Your task to perform on an android device: turn on data saver in the chrome app Image 0: 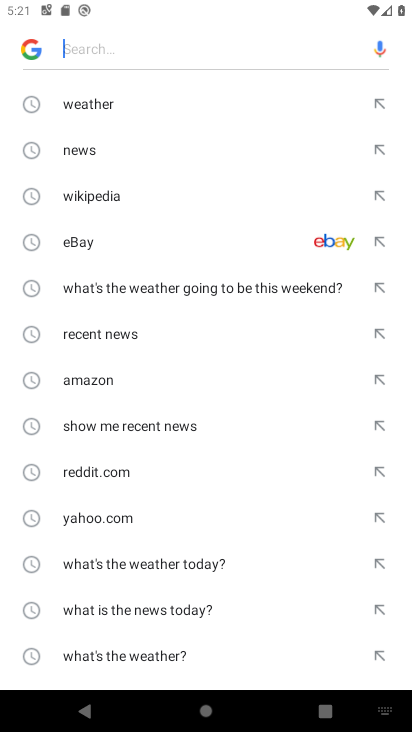
Step 0: press home button
Your task to perform on an android device: turn on data saver in the chrome app Image 1: 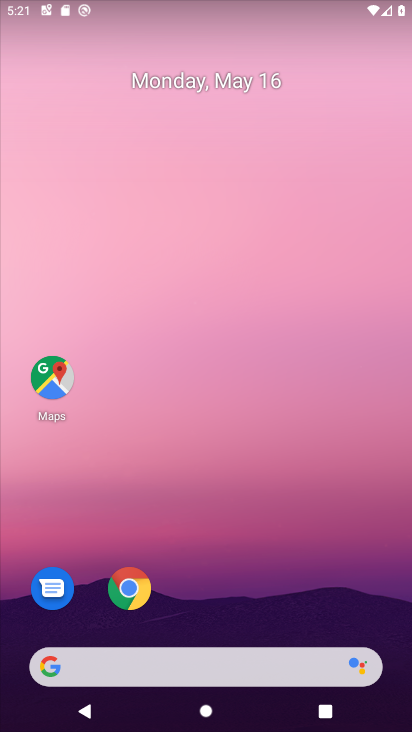
Step 1: click (133, 582)
Your task to perform on an android device: turn on data saver in the chrome app Image 2: 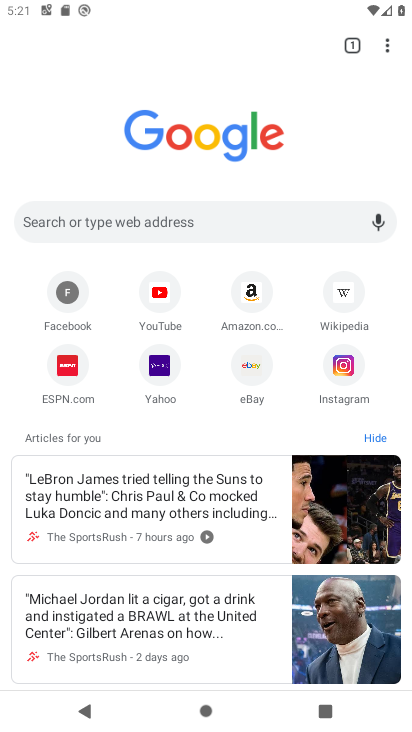
Step 2: click (382, 54)
Your task to perform on an android device: turn on data saver in the chrome app Image 3: 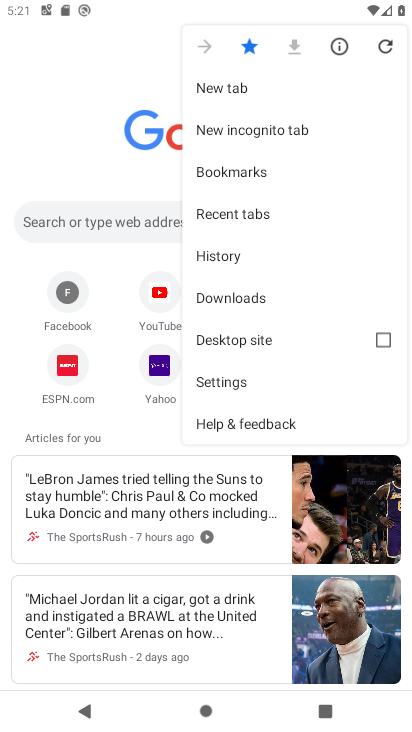
Step 3: click (252, 390)
Your task to perform on an android device: turn on data saver in the chrome app Image 4: 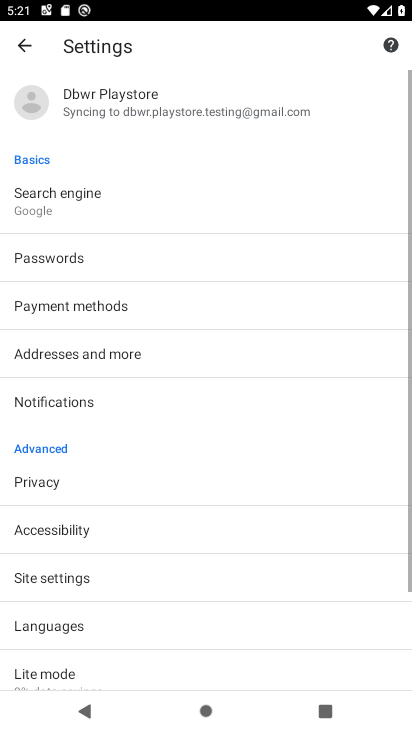
Step 4: drag from (160, 600) to (201, 213)
Your task to perform on an android device: turn on data saver in the chrome app Image 5: 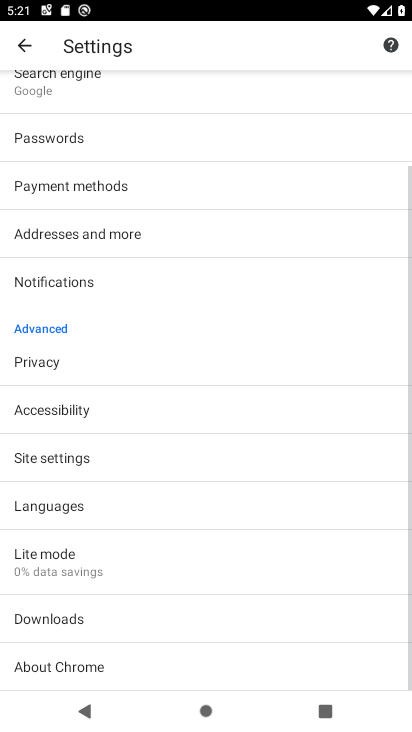
Step 5: click (101, 558)
Your task to perform on an android device: turn on data saver in the chrome app Image 6: 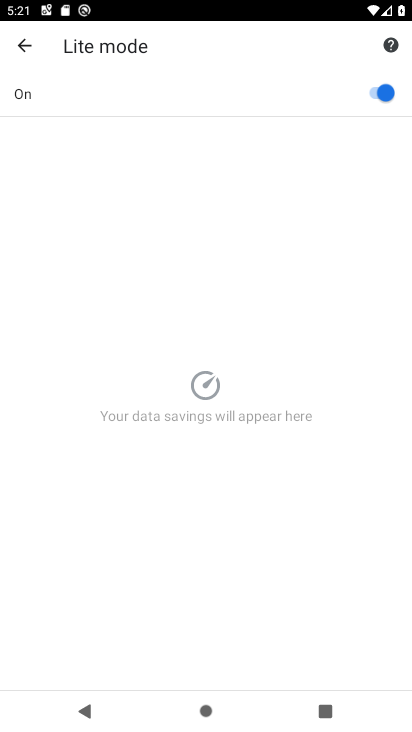
Step 6: task complete